Your task to perform on an android device: What's on my calendar today? Image 0: 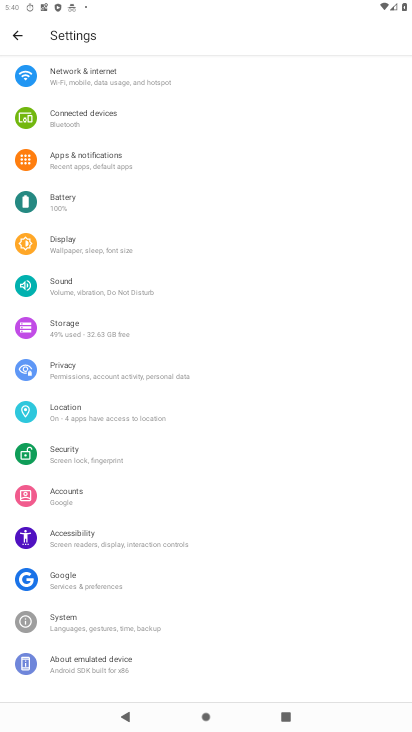
Step 0: press home button
Your task to perform on an android device: What's on my calendar today? Image 1: 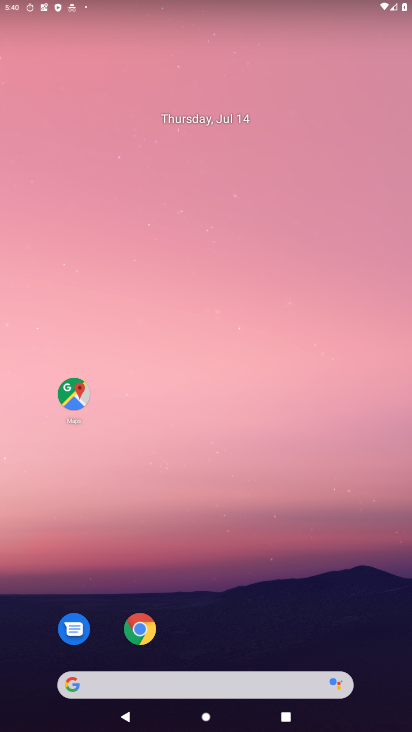
Step 1: drag from (228, 623) to (216, 25)
Your task to perform on an android device: What's on my calendar today? Image 2: 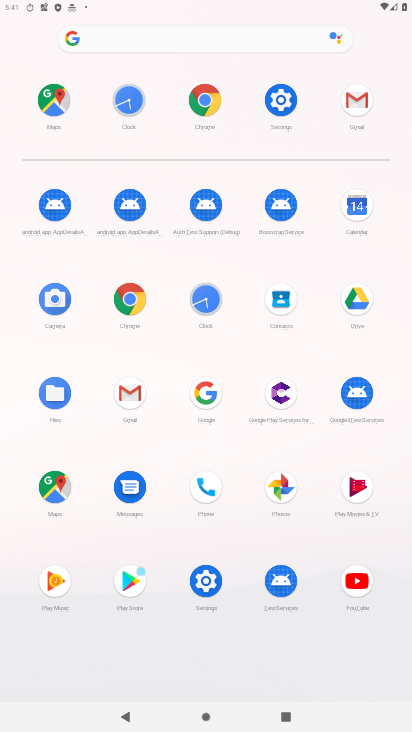
Step 2: click (357, 215)
Your task to perform on an android device: What's on my calendar today? Image 3: 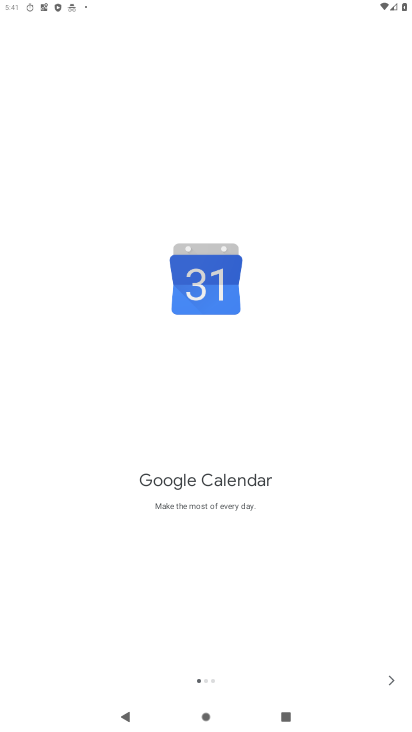
Step 3: click (394, 681)
Your task to perform on an android device: What's on my calendar today? Image 4: 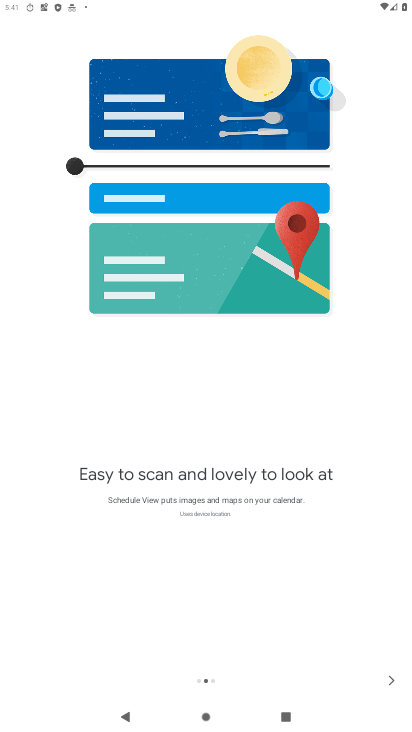
Step 4: click (394, 681)
Your task to perform on an android device: What's on my calendar today? Image 5: 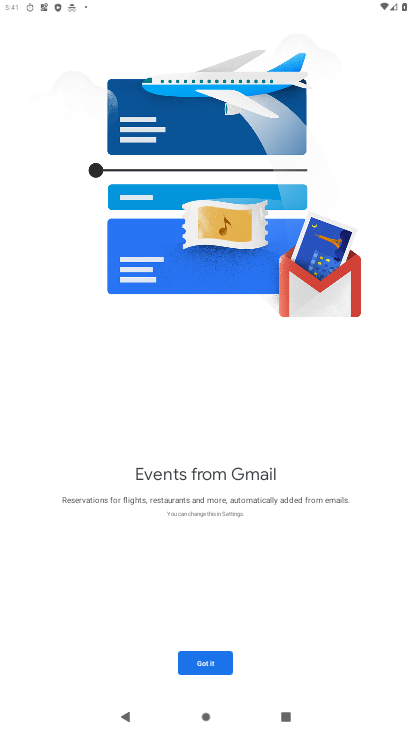
Step 5: click (224, 665)
Your task to perform on an android device: What's on my calendar today? Image 6: 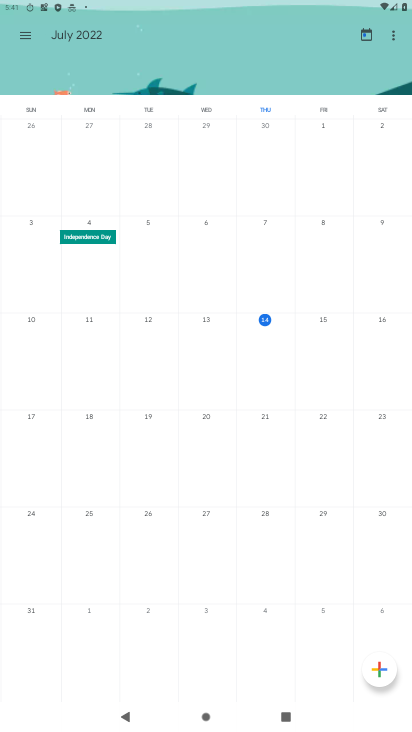
Step 6: click (320, 316)
Your task to perform on an android device: What's on my calendar today? Image 7: 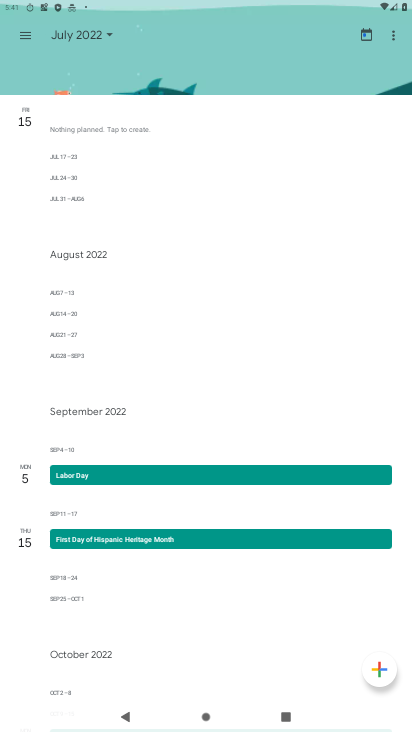
Step 7: task complete